Your task to perform on an android device: Open Google Maps Image 0: 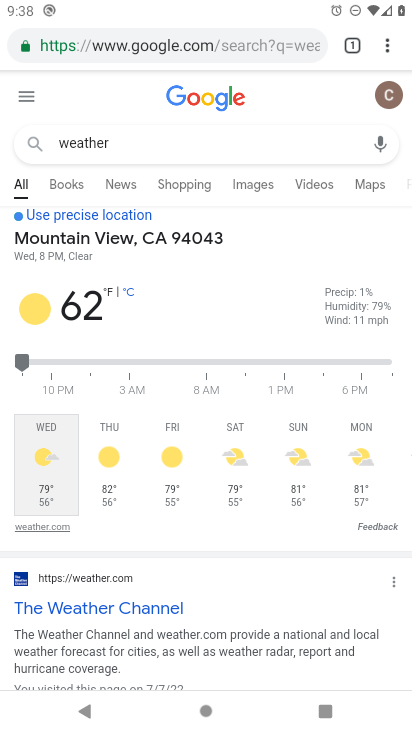
Step 0: press home button
Your task to perform on an android device: Open Google Maps Image 1: 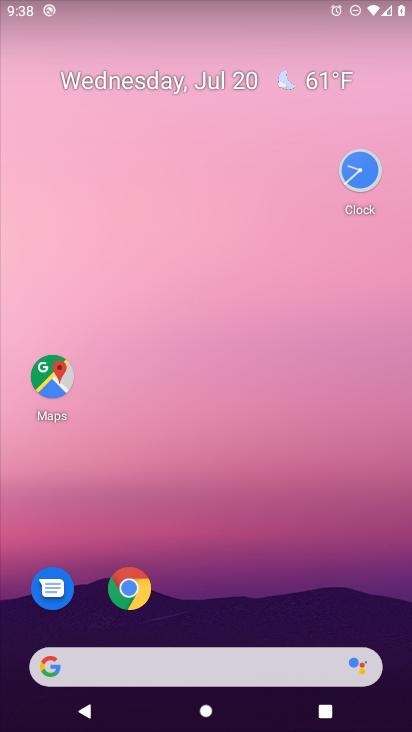
Step 1: click (51, 376)
Your task to perform on an android device: Open Google Maps Image 2: 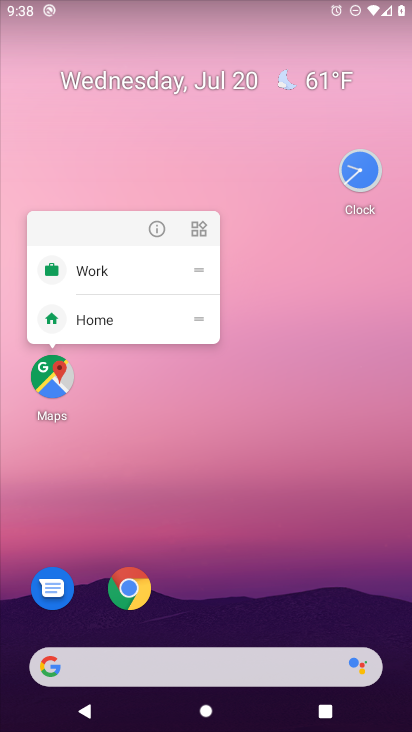
Step 2: click (53, 370)
Your task to perform on an android device: Open Google Maps Image 3: 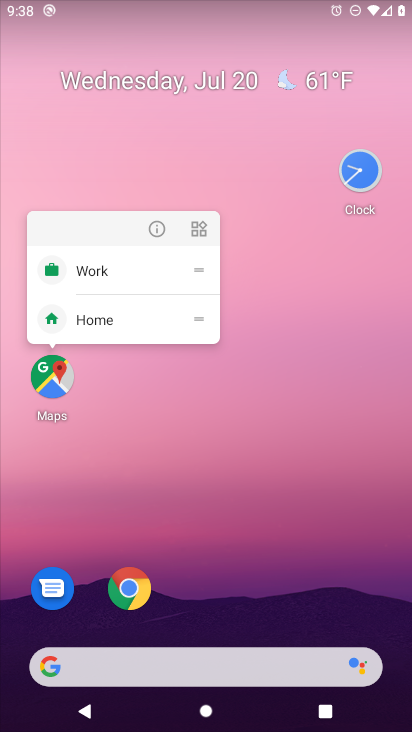
Step 3: click (50, 374)
Your task to perform on an android device: Open Google Maps Image 4: 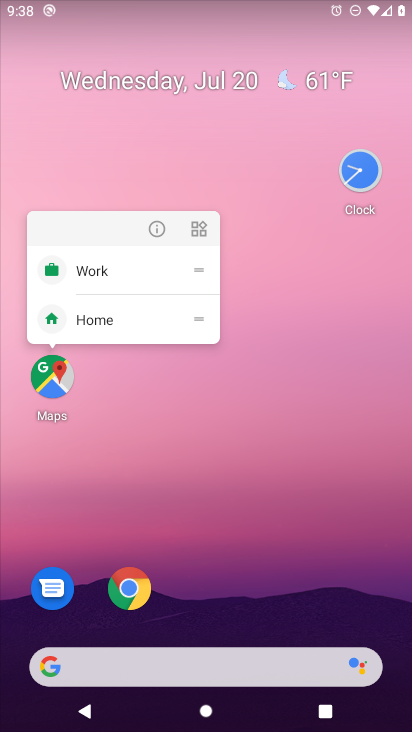
Step 4: task complete